Your task to perform on an android device: search for starred emails in the gmail app Image 0: 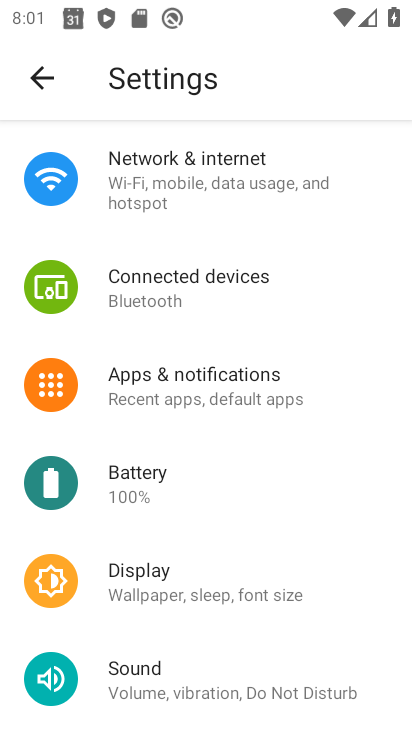
Step 0: press home button
Your task to perform on an android device: search for starred emails in the gmail app Image 1: 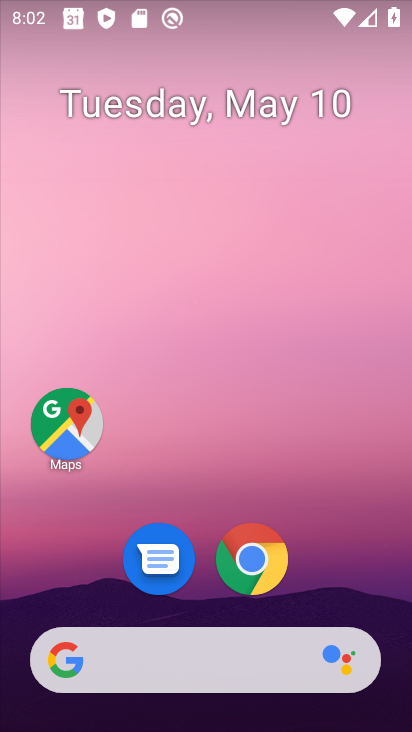
Step 1: drag from (379, 539) to (335, 270)
Your task to perform on an android device: search for starred emails in the gmail app Image 2: 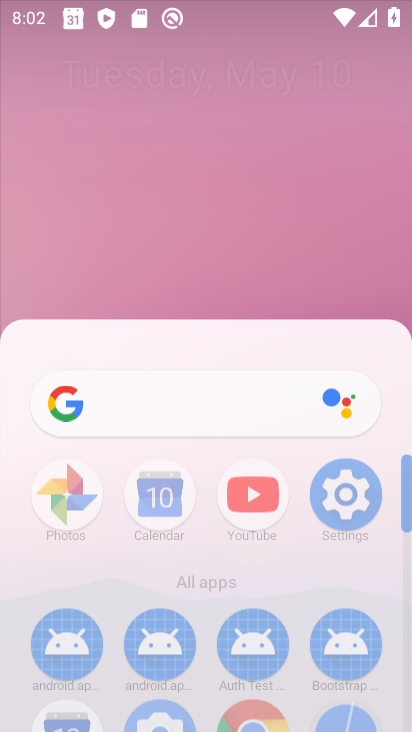
Step 2: click (335, 270)
Your task to perform on an android device: search for starred emails in the gmail app Image 3: 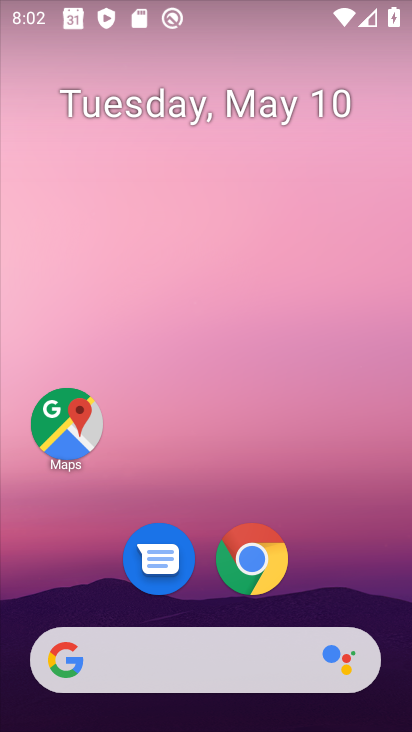
Step 3: drag from (332, 557) to (293, 167)
Your task to perform on an android device: search for starred emails in the gmail app Image 4: 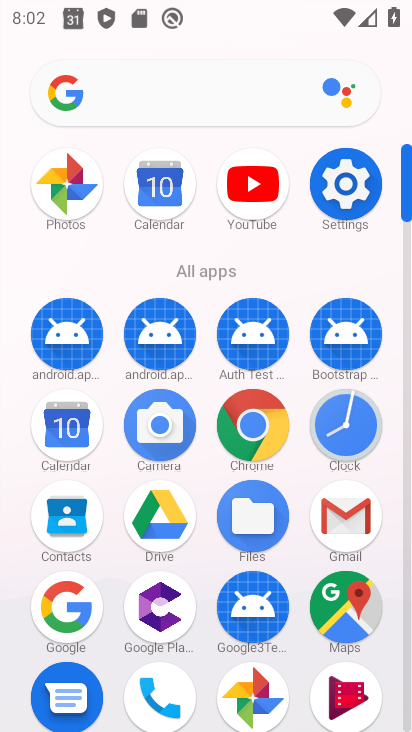
Step 4: click (344, 509)
Your task to perform on an android device: search for starred emails in the gmail app Image 5: 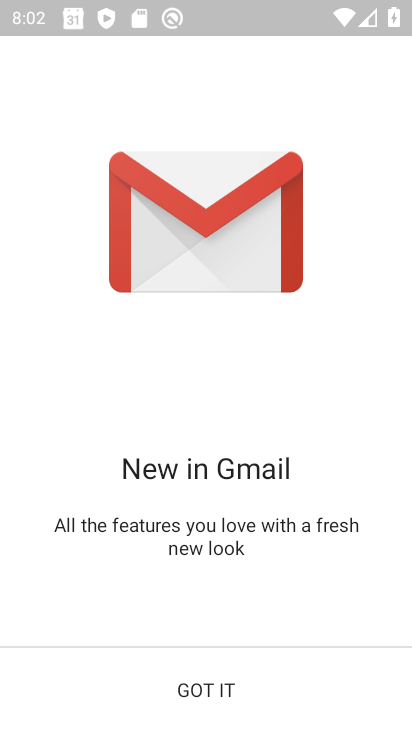
Step 5: click (137, 689)
Your task to perform on an android device: search for starred emails in the gmail app Image 6: 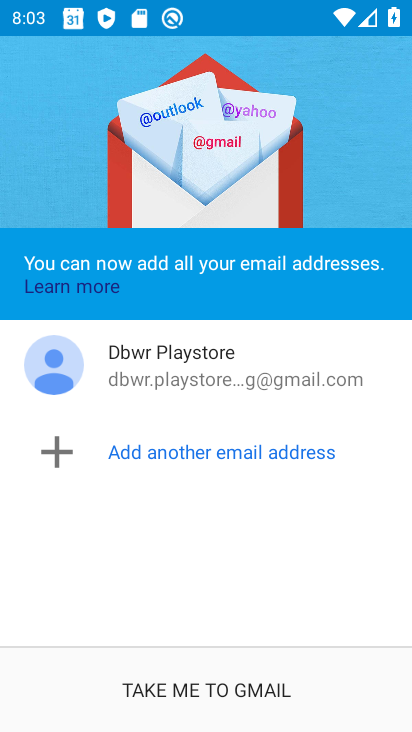
Step 6: click (126, 688)
Your task to perform on an android device: search for starred emails in the gmail app Image 7: 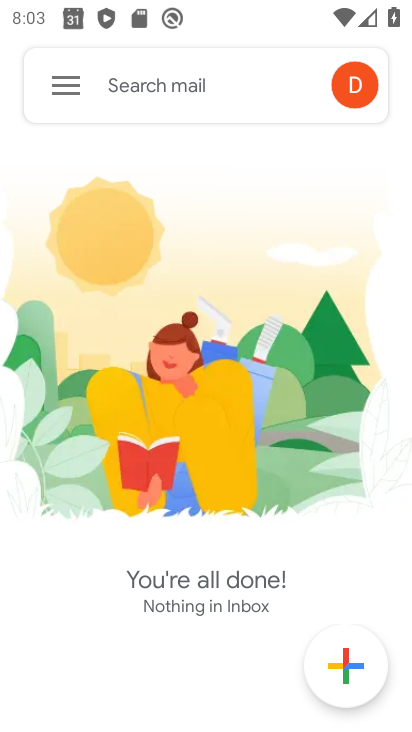
Step 7: click (76, 70)
Your task to perform on an android device: search for starred emails in the gmail app Image 8: 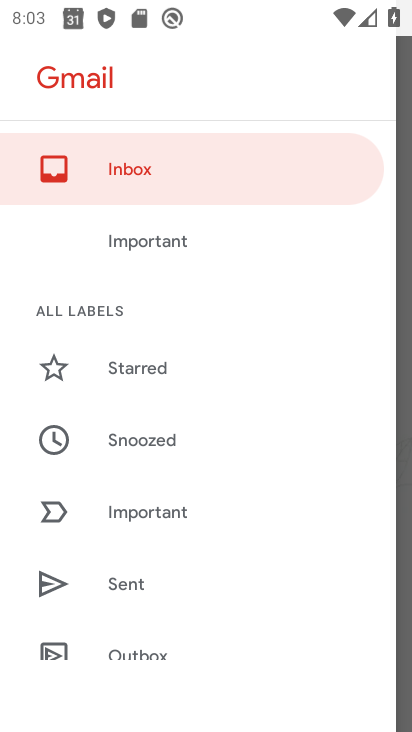
Step 8: click (152, 364)
Your task to perform on an android device: search for starred emails in the gmail app Image 9: 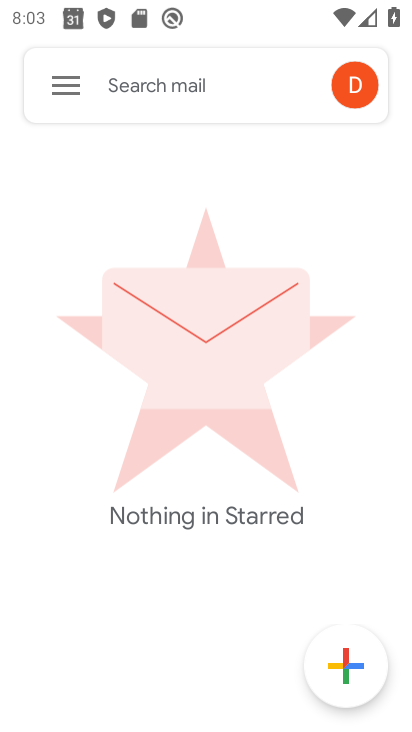
Step 9: task complete